Your task to perform on an android device: manage bookmarks in the chrome app Image 0: 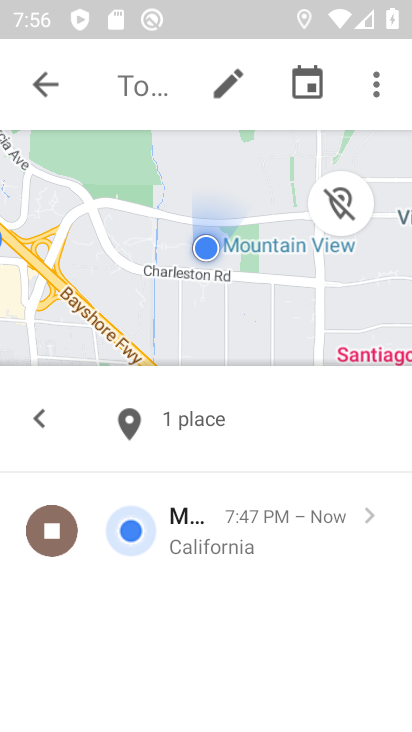
Step 0: press home button
Your task to perform on an android device: manage bookmarks in the chrome app Image 1: 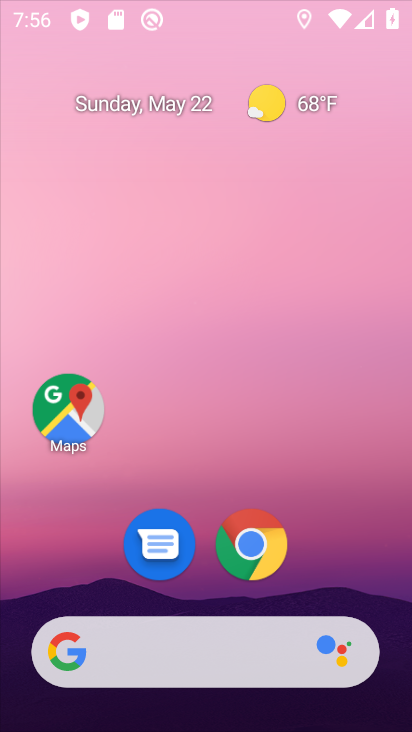
Step 1: press home button
Your task to perform on an android device: manage bookmarks in the chrome app Image 2: 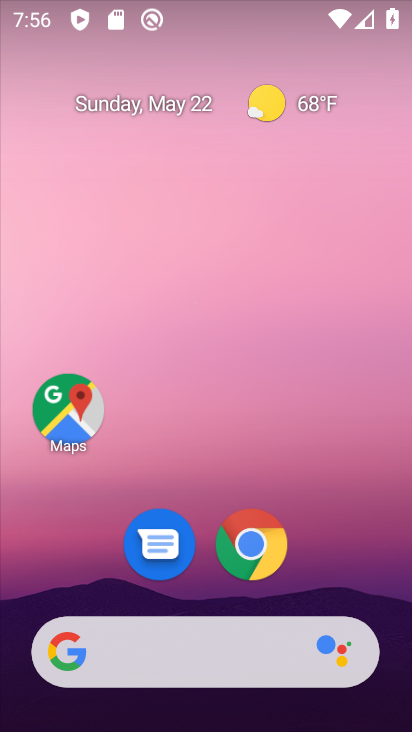
Step 2: click (270, 543)
Your task to perform on an android device: manage bookmarks in the chrome app Image 3: 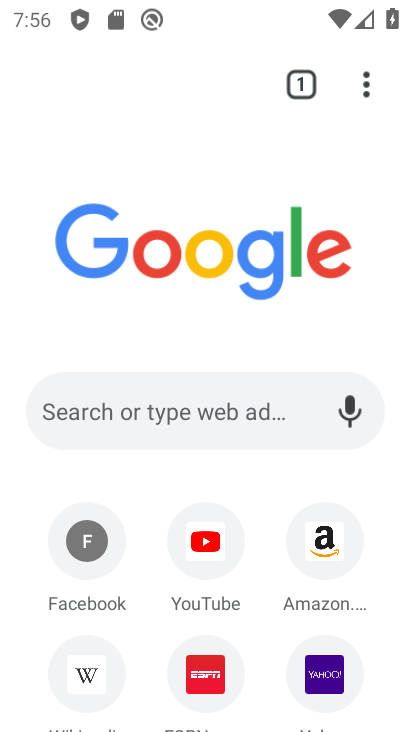
Step 3: click (361, 78)
Your task to perform on an android device: manage bookmarks in the chrome app Image 4: 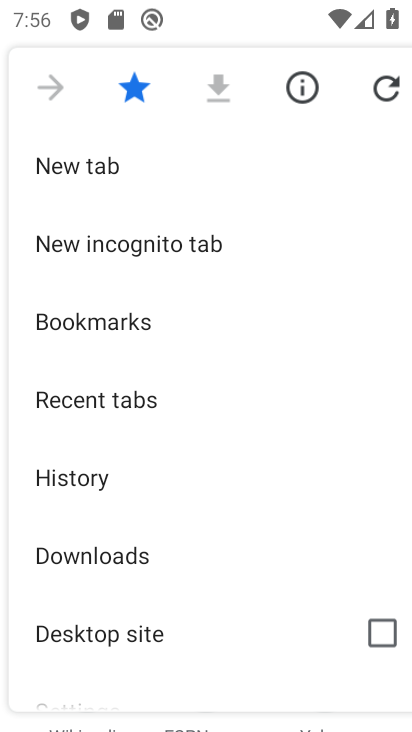
Step 4: click (133, 321)
Your task to perform on an android device: manage bookmarks in the chrome app Image 5: 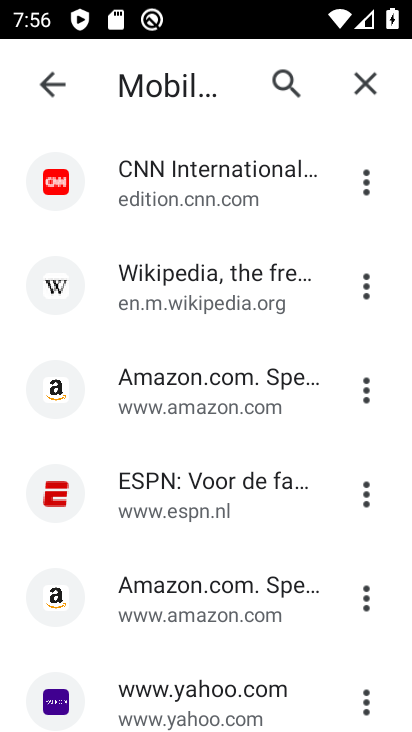
Step 5: click (365, 385)
Your task to perform on an android device: manage bookmarks in the chrome app Image 6: 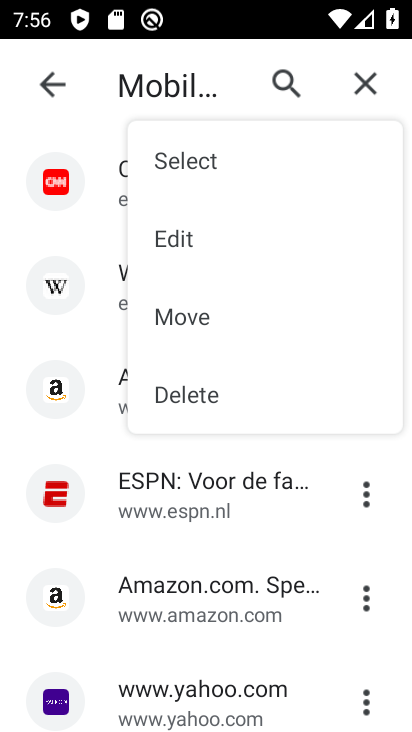
Step 6: click (215, 394)
Your task to perform on an android device: manage bookmarks in the chrome app Image 7: 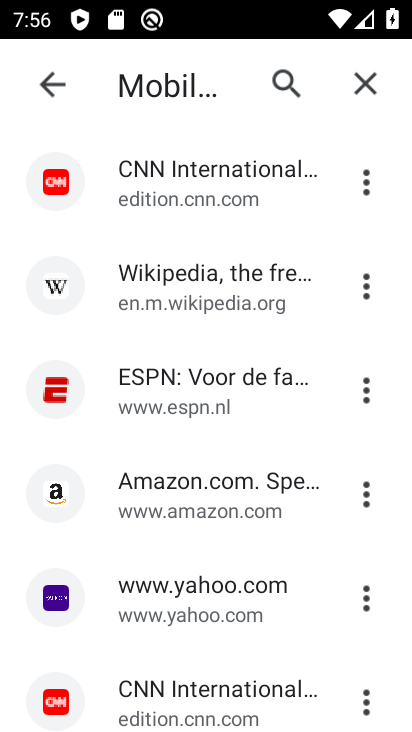
Step 7: task complete